Your task to perform on an android device: toggle wifi Image 0: 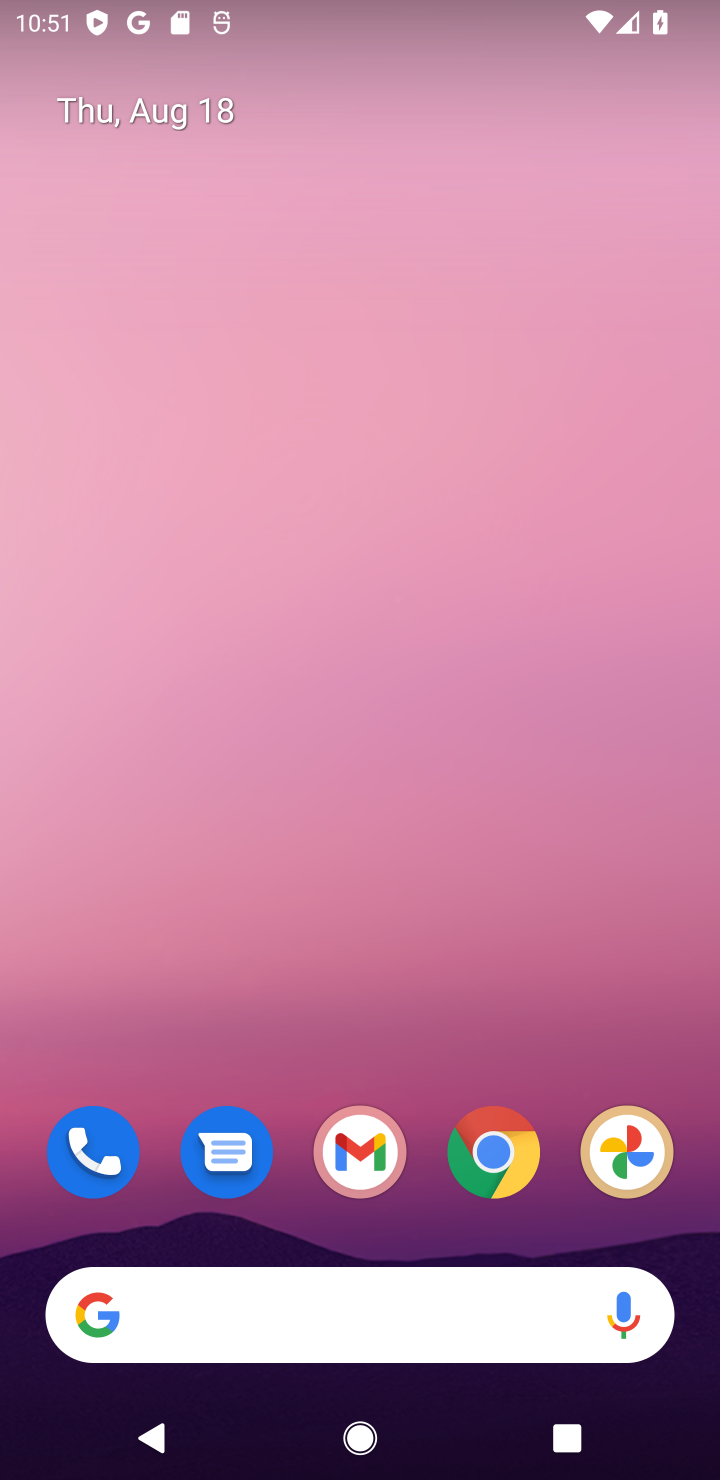
Step 0: drag from (357, 13) to (391, 807)
Your task to perform on an android device: toggle wifi Image 1: 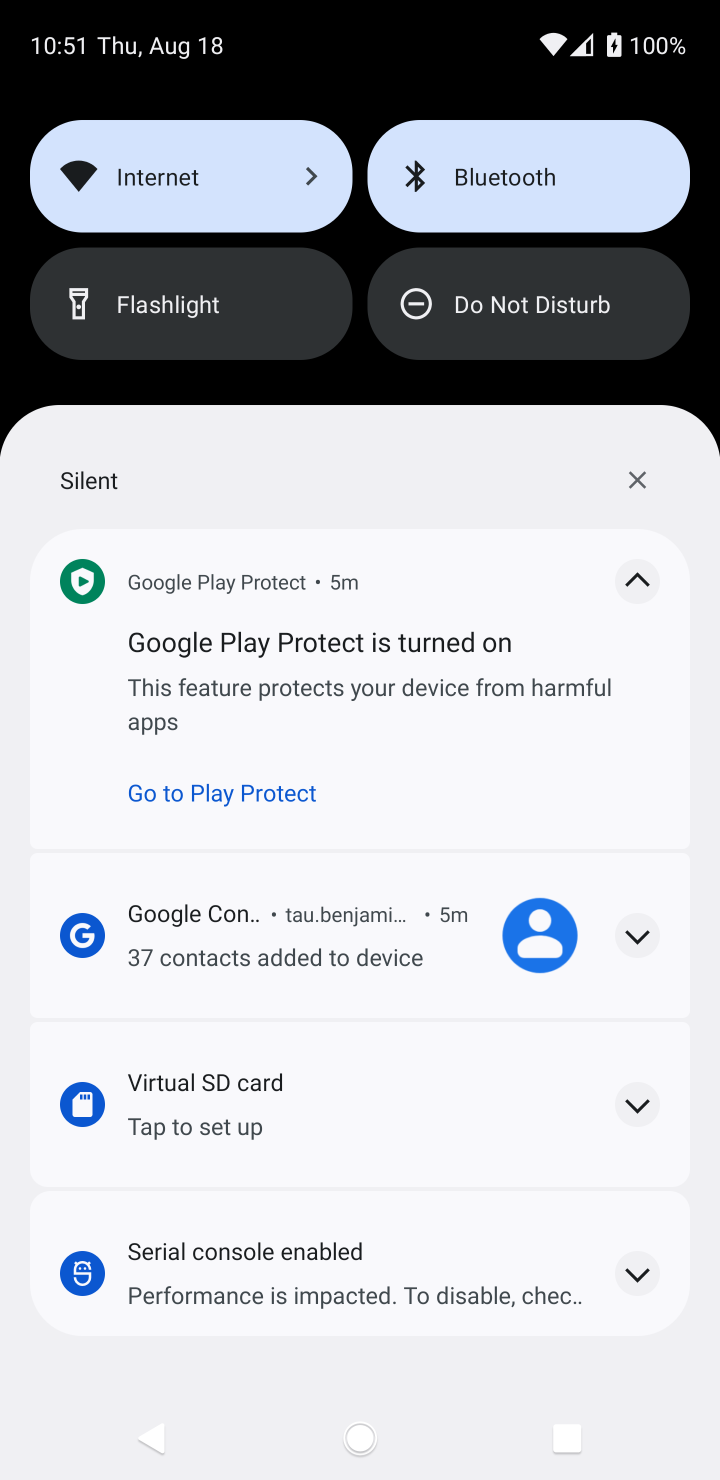
Step 1: click (86, 166)
Your task to perform on an android device: toggle wifi Image 2: 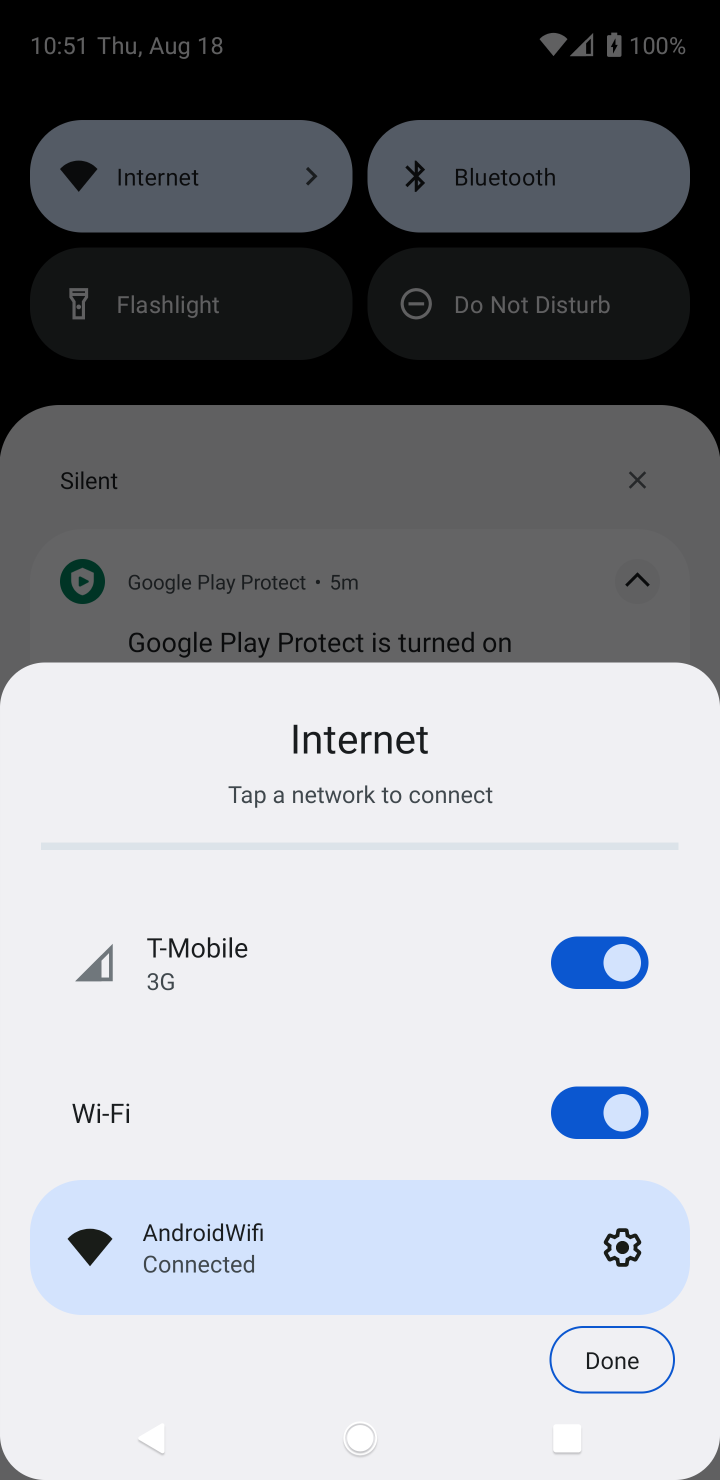
Step 2: click (81, 1233)
Your task to perform on an android device: toggle wifi Image 3: 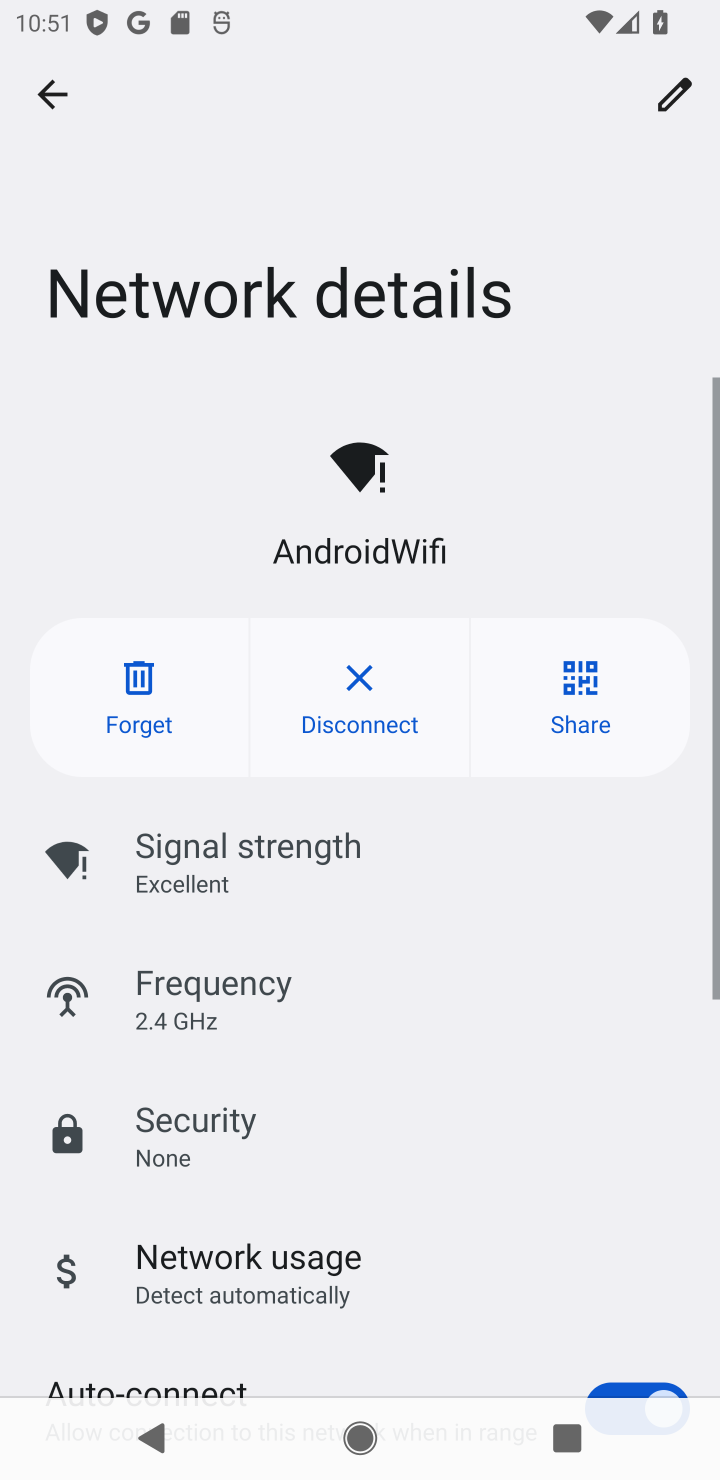
Step 3: click (55, 83)
Your task to perform on an android device: toggle wifi Image 4: 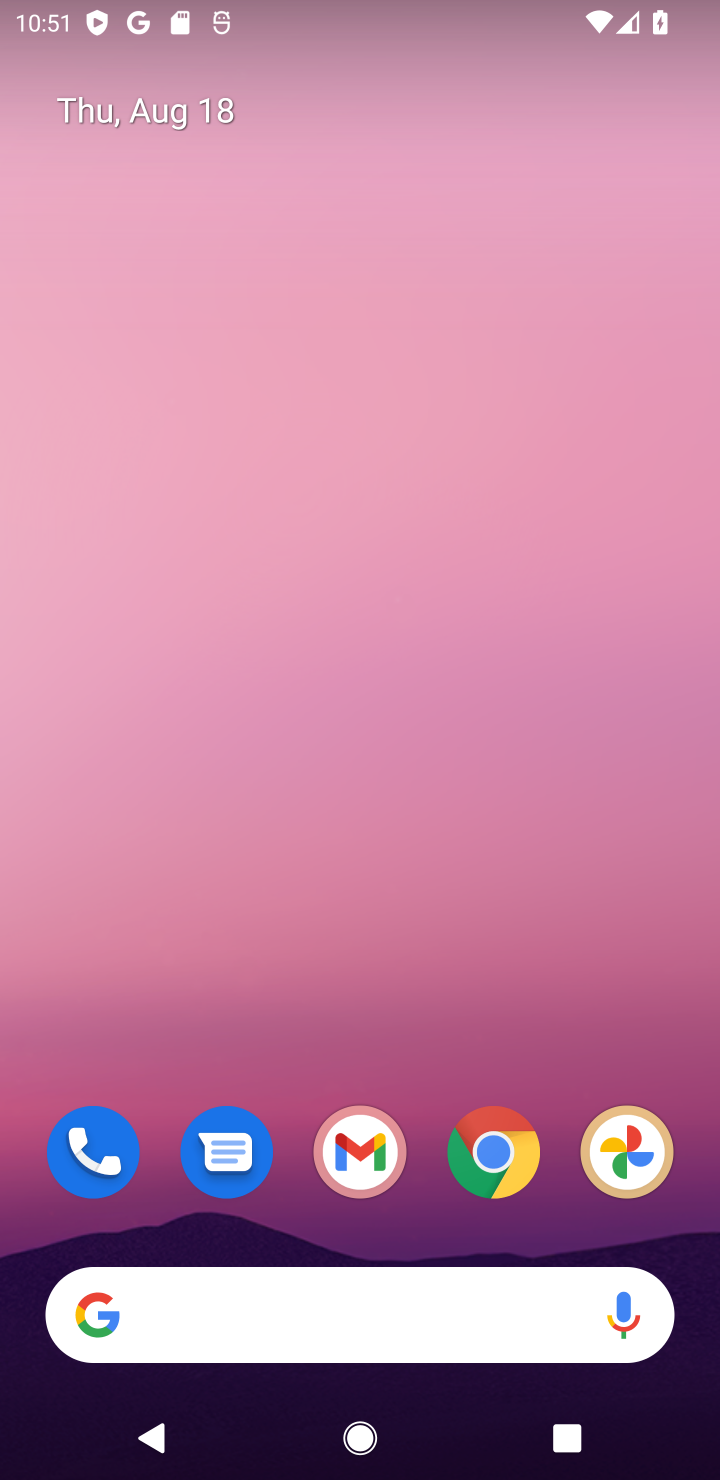
Step 4: drag from (168, 15) to (408, 1082)
Your task to perform on an android device: toggle wifi Image 5: 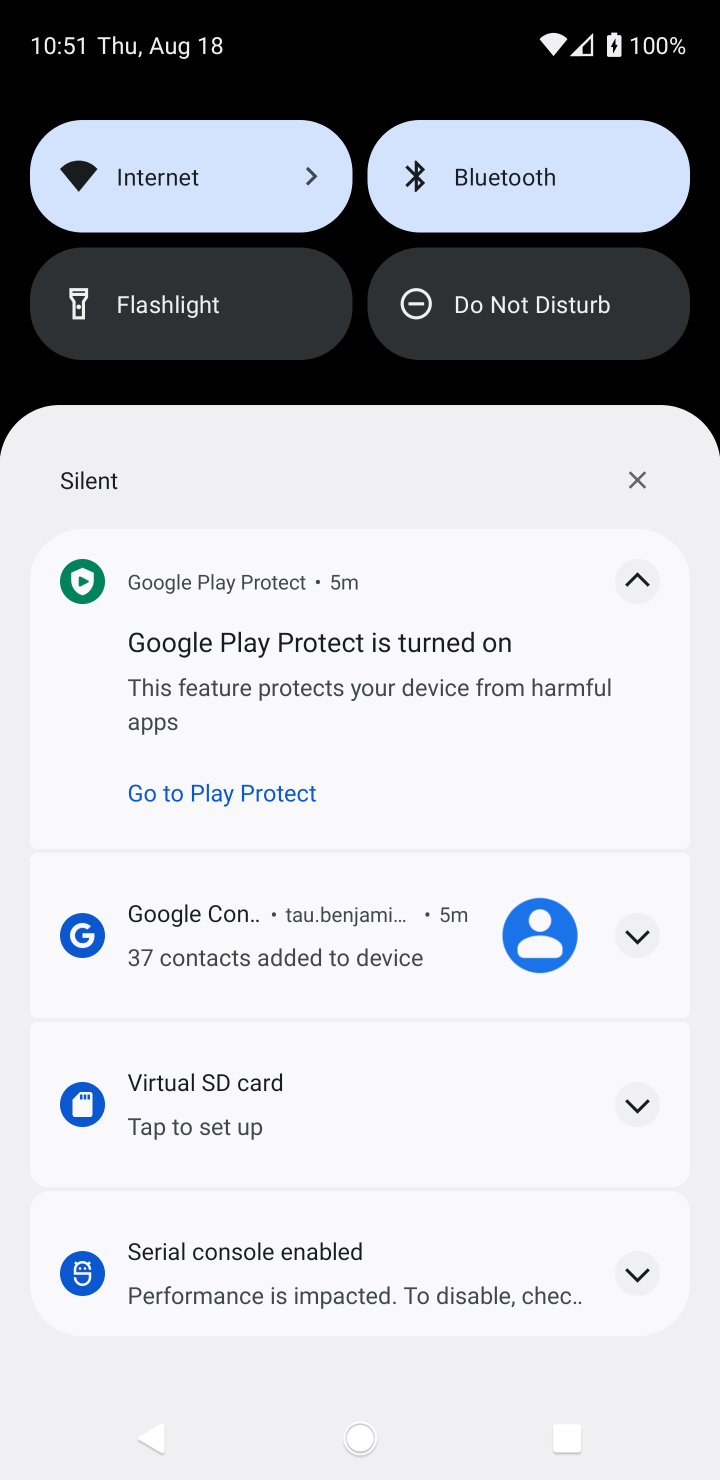
Step 5: click (136, 163)
Your task to perform on an android device: toggle wifi Image 6: 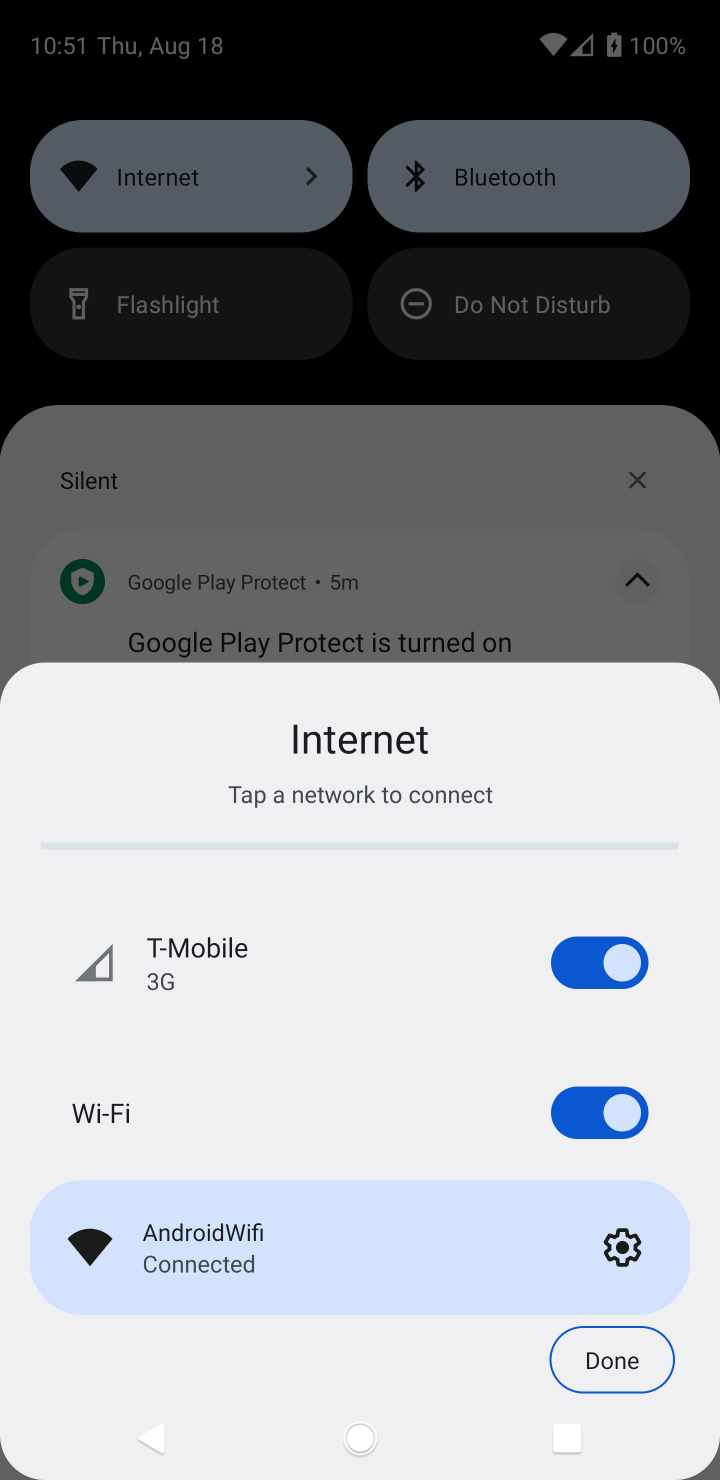
Step 6: click (581, 1083)
Your task to perform on an android device: toggle wifi Image 7: 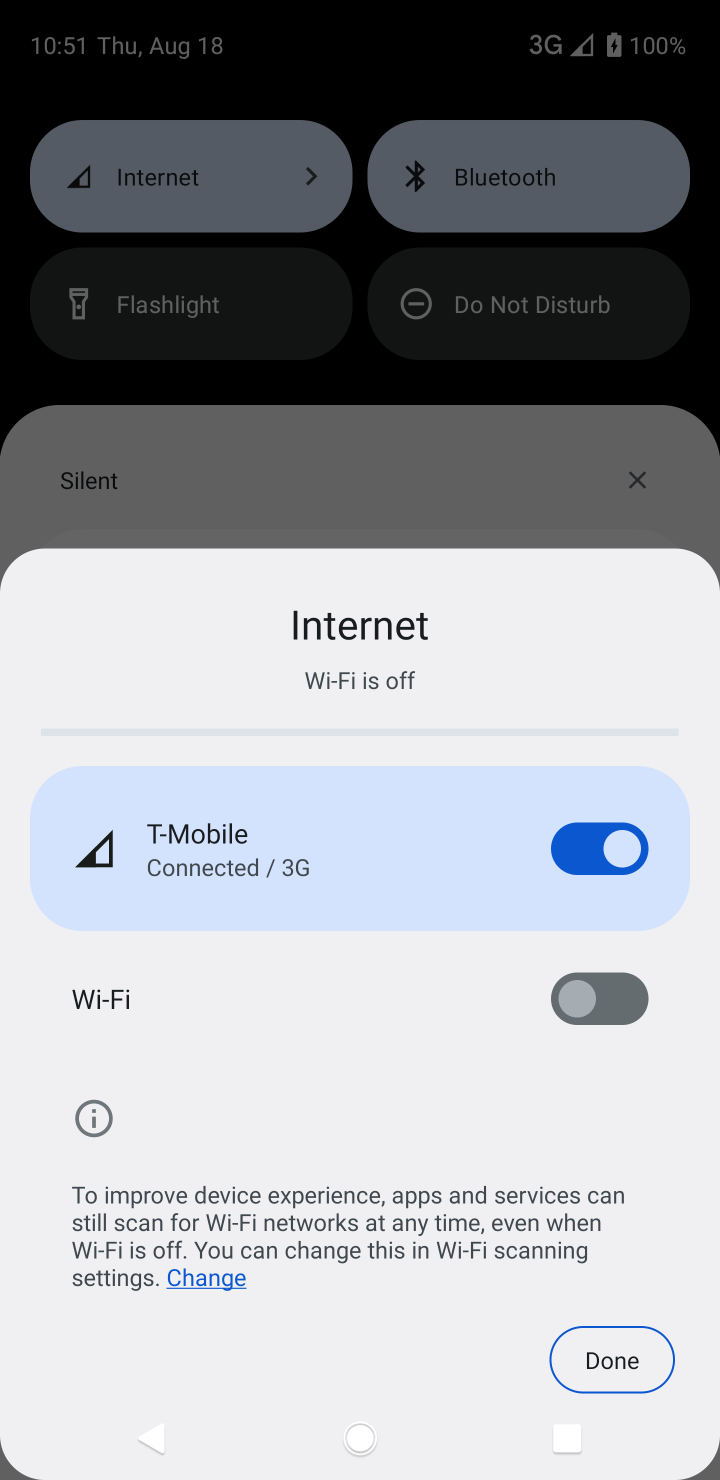
Step 7: task complete